Your task to perform on an android device: Open the calendar and show me this week's events? Image 0: 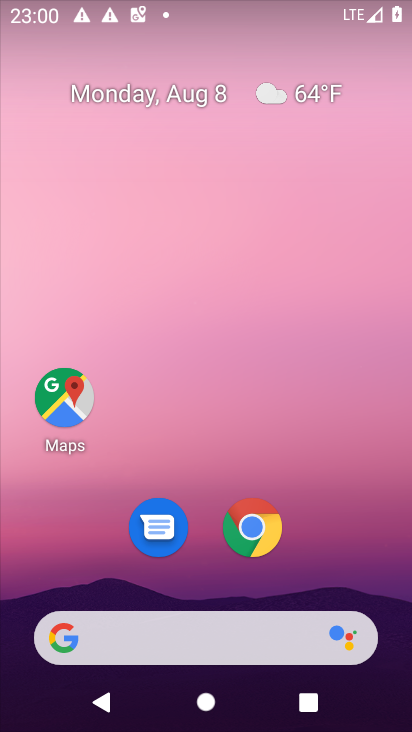
Step 0: drag from (396, 707) to (375, 245)
Your task to perform on an android device: Open the calendar and show me this week's events? Image 1: 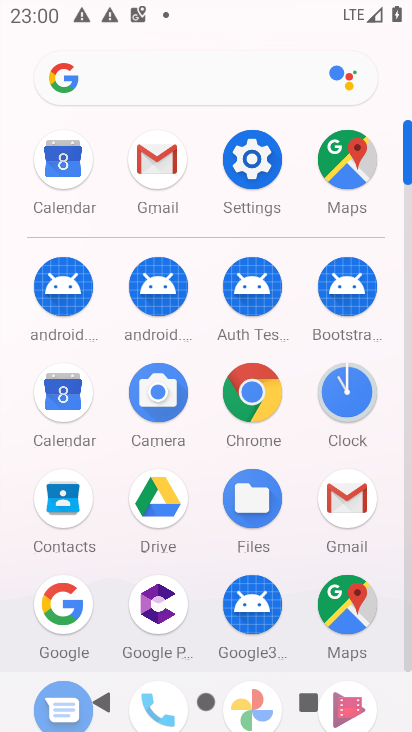
Step 1: click (61, 391)
Your task to perform on an android device: Open the calendar and show me this week's events? Image 2: 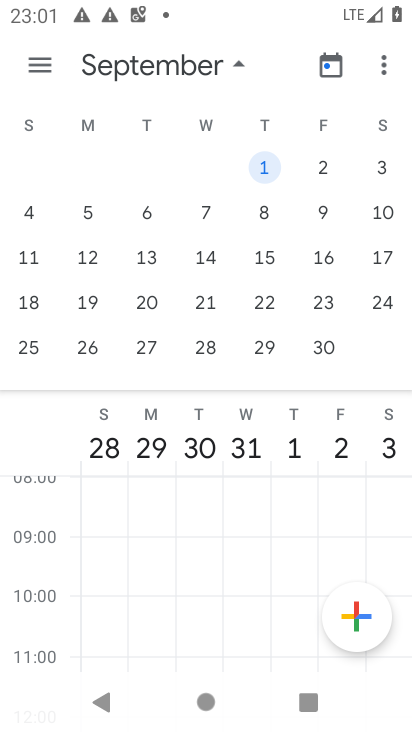
Step 2: drag from (54, 244) to (382, 236)
Your task to perform on an android device: Open the calendar and show me this week's events? Image 3: 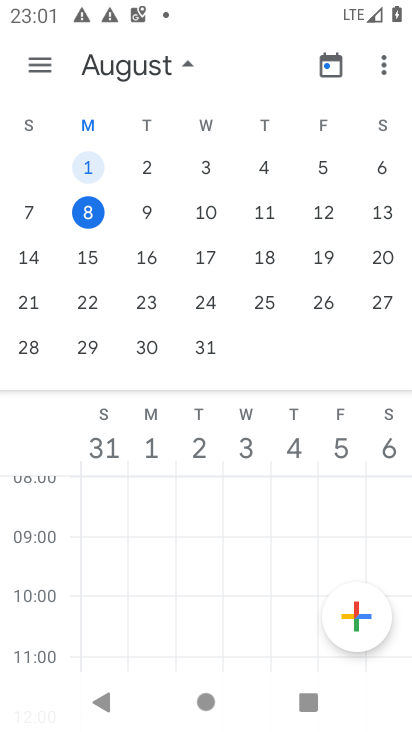
Step 3: click (34, 58)
Your task to perform on an android device: Open the calendar and show me this week's events? Image 4: 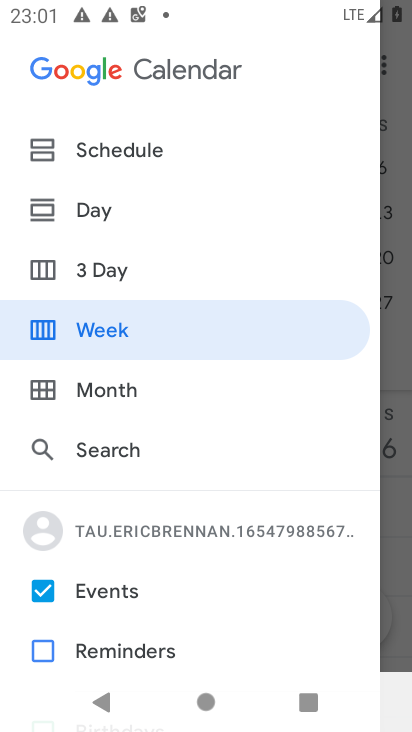
Step 4: click (103, 143)
Your task to perform on an android device: Open the calendar and show me this week's events? Image 5: 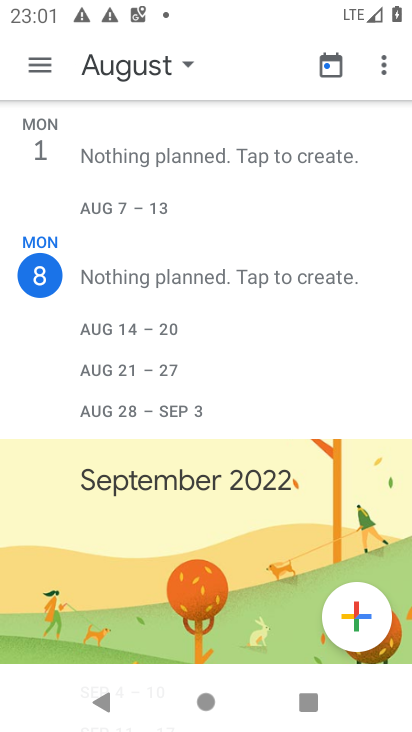
Step 5: task complete